Your task to perform on an android device: open the mobile data screen to see how much data has been used Image 0: 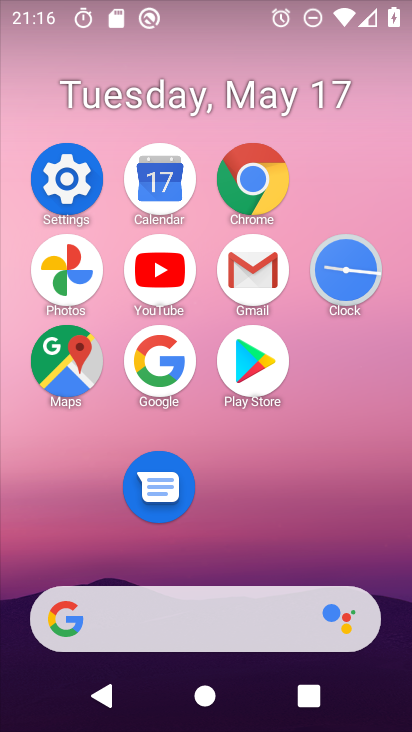
Step 0: click (67, 175)
Your task to perform on an android device: open the mobile data screen to see how much data has been used Image 1: 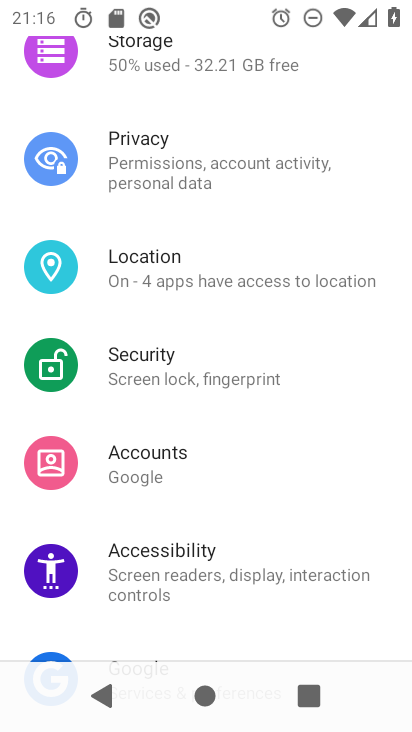
Step 1: drag from (268, 167) to (211, 577)
Your task to perform on an android device: open the mobile data screen to see how much data has been used Image 2: 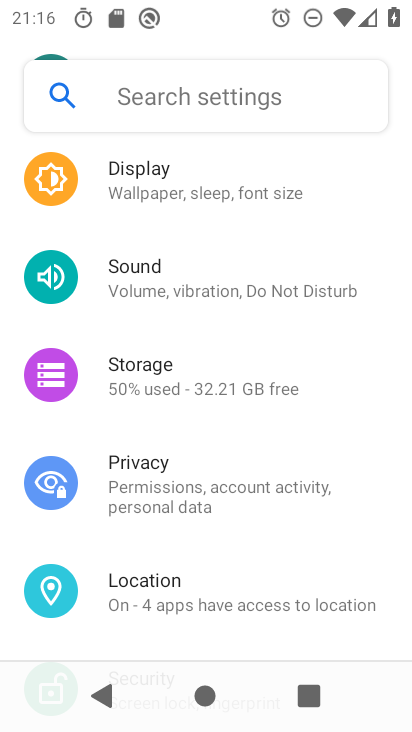
Step 2: drag from (357, 186) to (309, 510)
Your task to perform on an android device: open the mobile data screen to see how much data has been used Image 3: 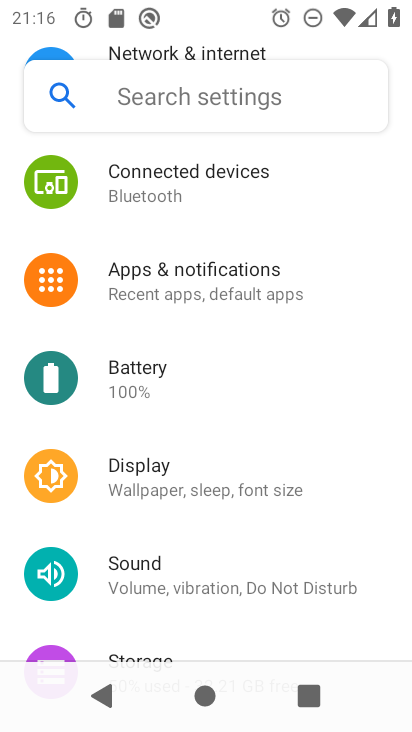
Step 3: drag from (334, 228) to (343, 584)
Your task to perform on an android device: open the mobile data screen to see how much data has been used Image 4: 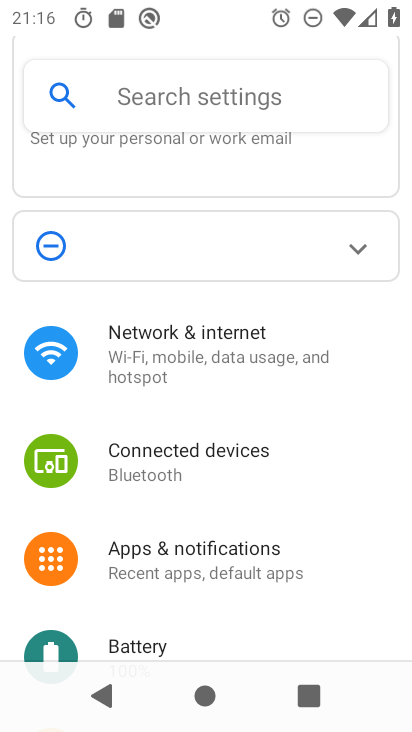
Step 4: click (236, 332)
Your task to perform on an android device: open the mobile data screen to see how much data has been used Image 5: 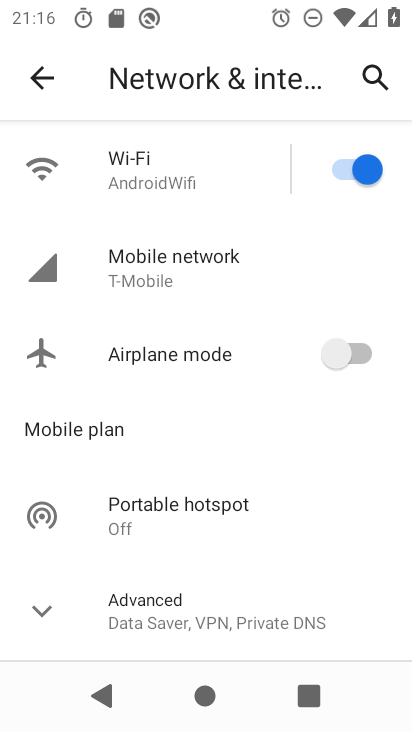
Step 5: click (231, 269)
Your task to perform on an android device: open the mobile data screen to see how much data has been used Image 6: 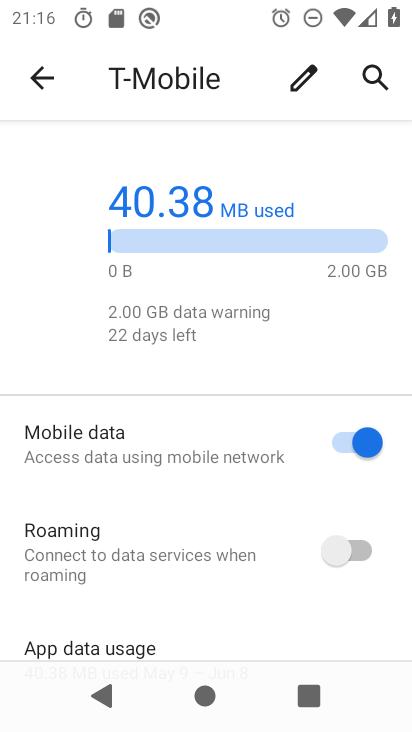
Step 6: task complete